Your task to perform on an android device: check battery use Image 0: 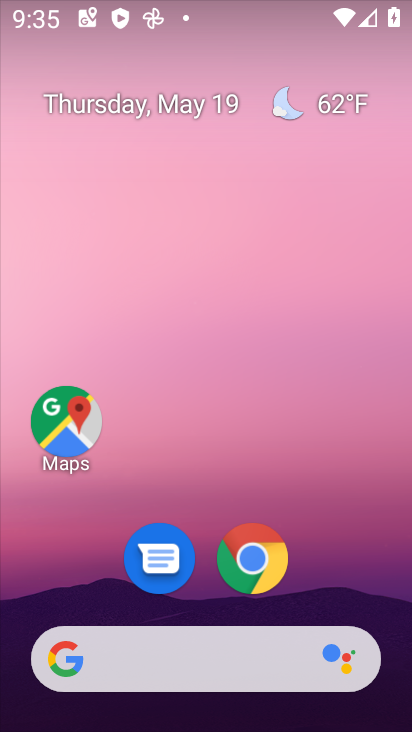
Step 0: drag from (321, 592) to (290, 134)
Your task to perform on an android device: check battery use Image 1: 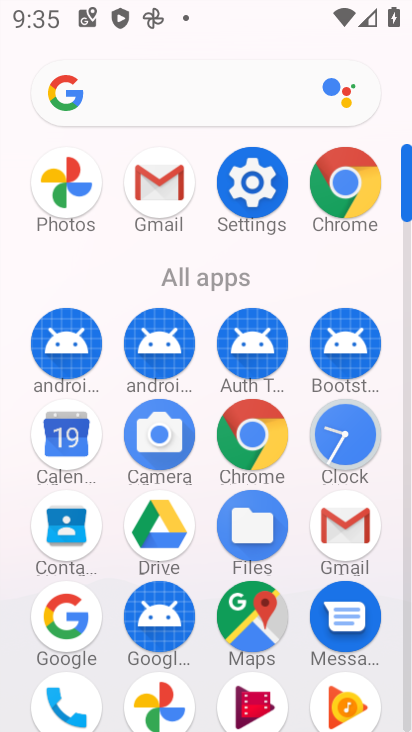
Step 1: click (252, 183)
Your task to perform on an android device: check battery use Image 2: 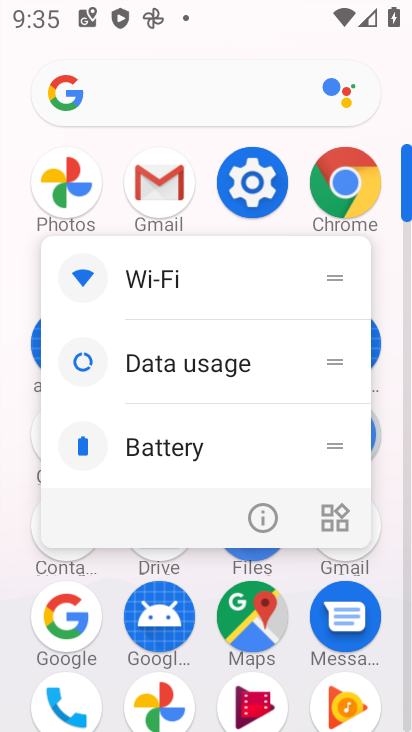
Step 2: click (252, 183)
Your task to perform on an android device: check battery use Image 3: 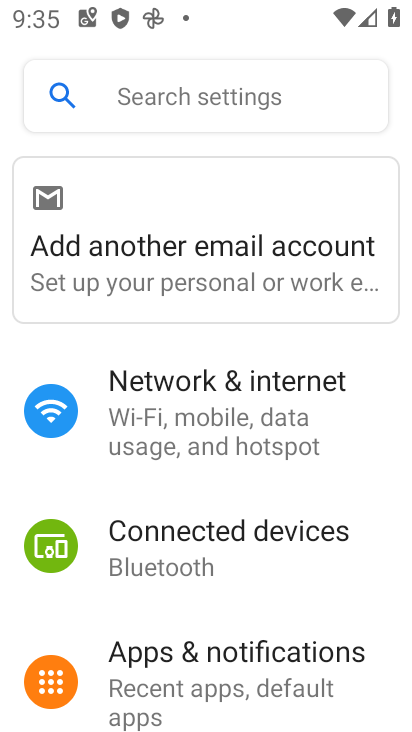
Step 3: drag from (250, 592) to (279, 464)
Your task to perform on an android device: check battery use Image 4: 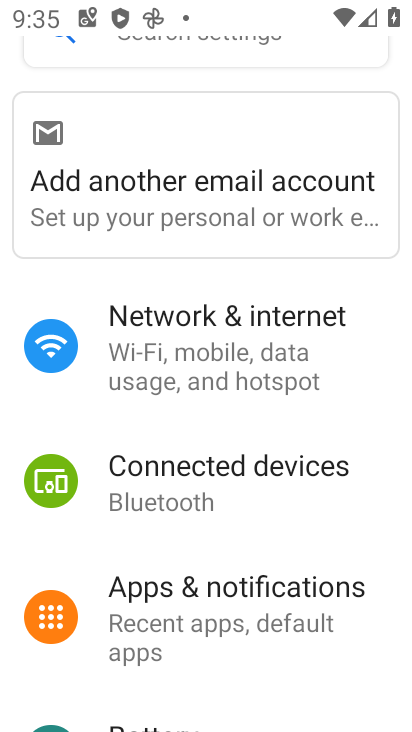
Step 4: drag from (213, 613) to (257, 532)
Your task to perform on an android device: check battery use Image 5: 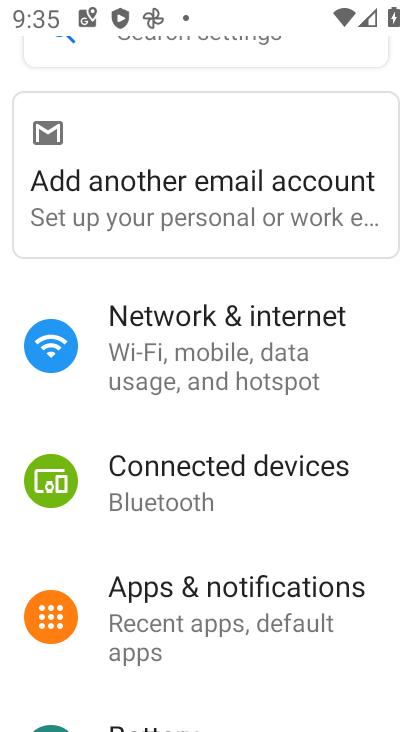
Step 5: drag from (199, 686) to (215, 417)
Your task to perform on an android device: check battery use Image 6: 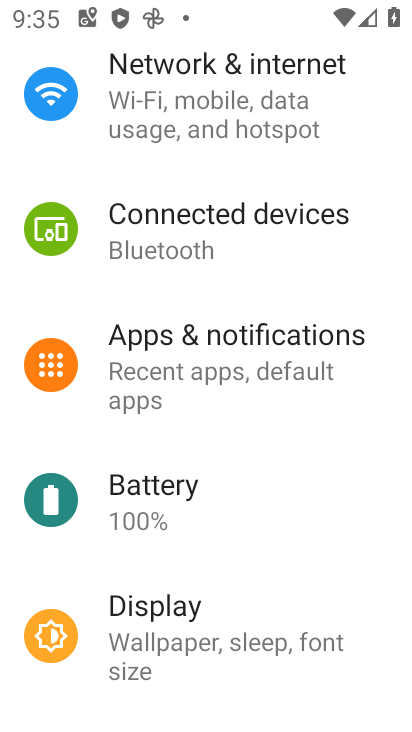
Step 6: click (149, 501)
Your task to perform on an android device: check battery use Image 7: 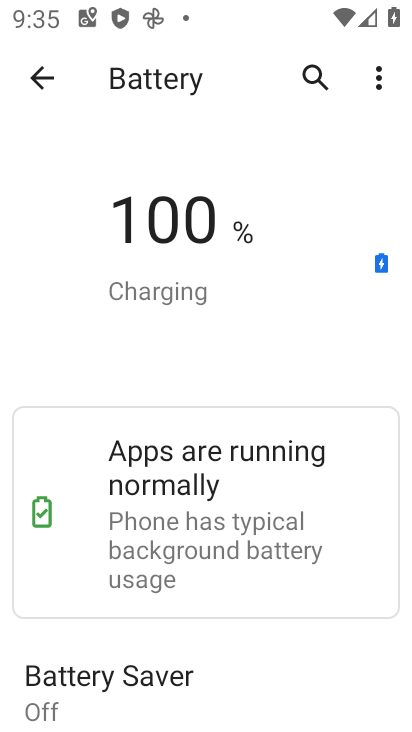
Step 7: click (377, 76)
Your task to perform on an android device: check battery use Image 8: 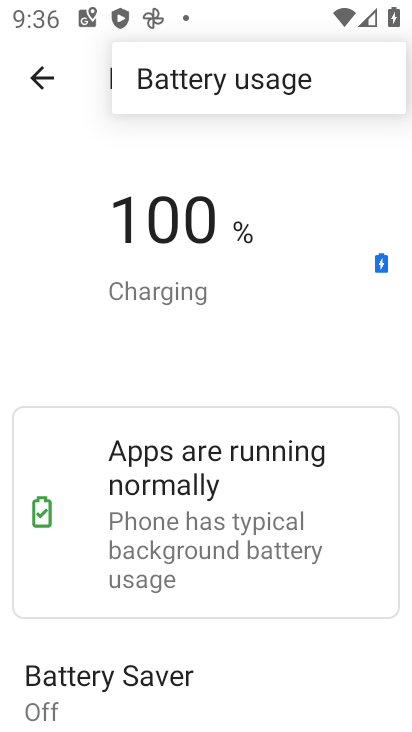
Step 8: click (255, 81)
Your task to perform on an android device: check battery use Image 9: 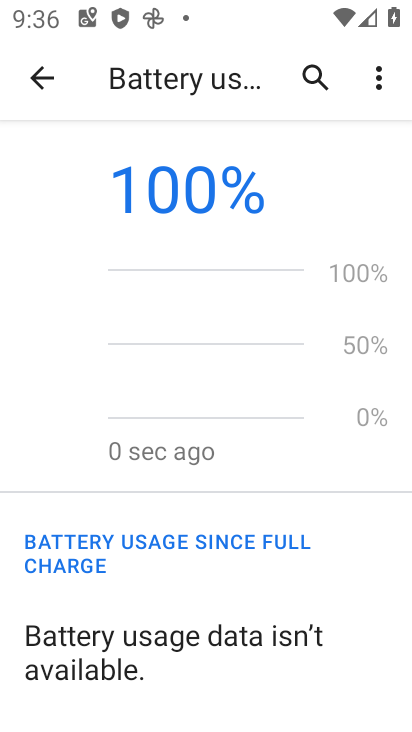
Step 9: task complete